Your task to perform on an android device: Open Yahoo.com Image 0: 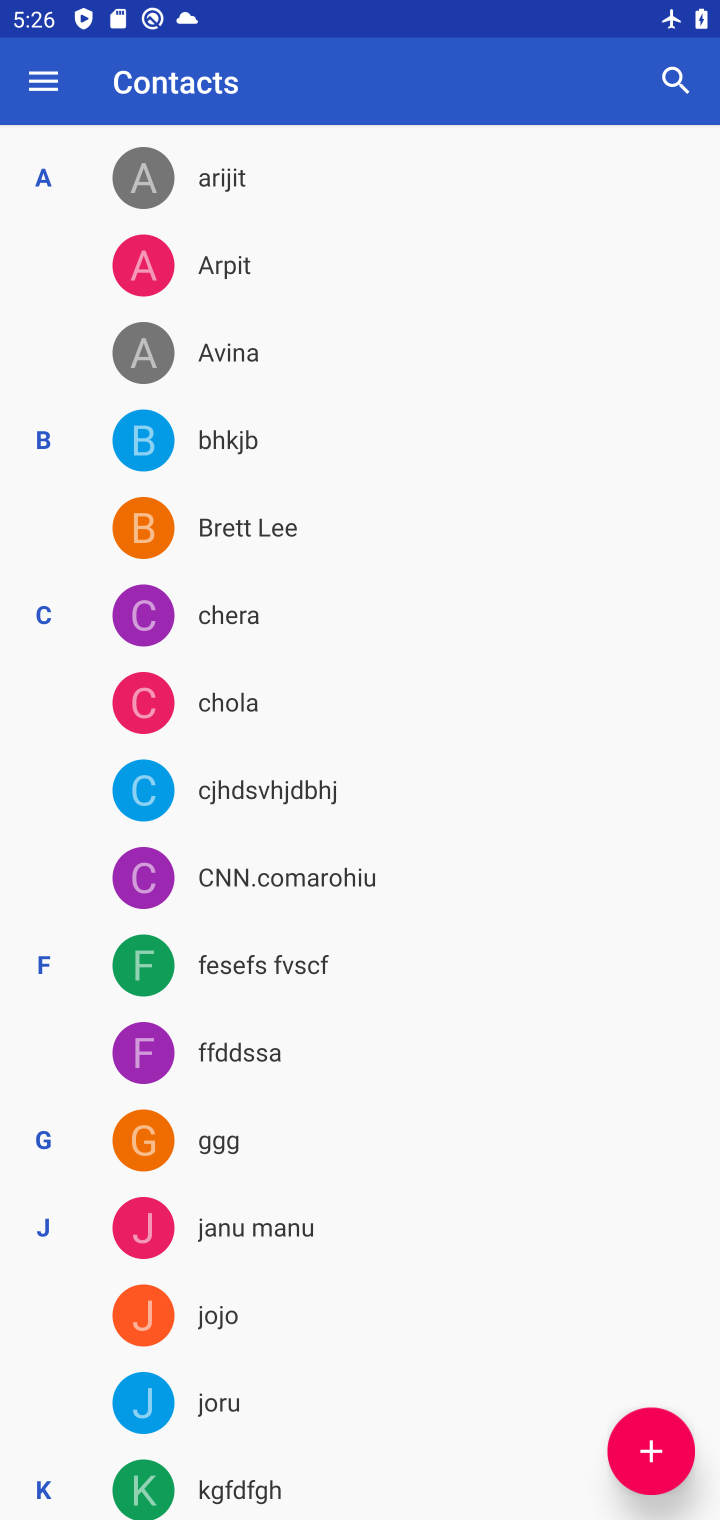
Step 0: press back button
Your task to perform on an android device: Open Yahoo.com Image 1: 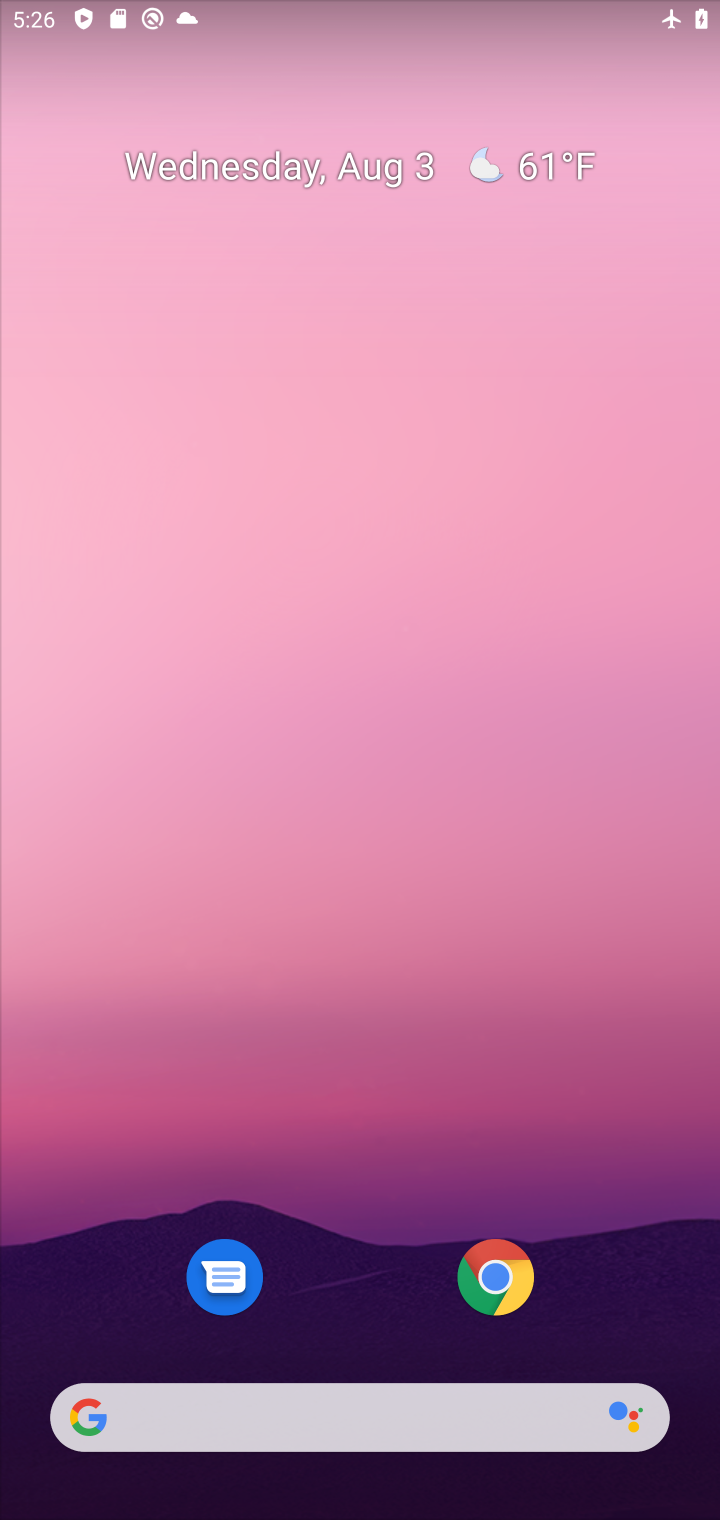
Step 1: click (484, 1276)
Your task to perform on an android device: Open Yahoo.com Image 2: 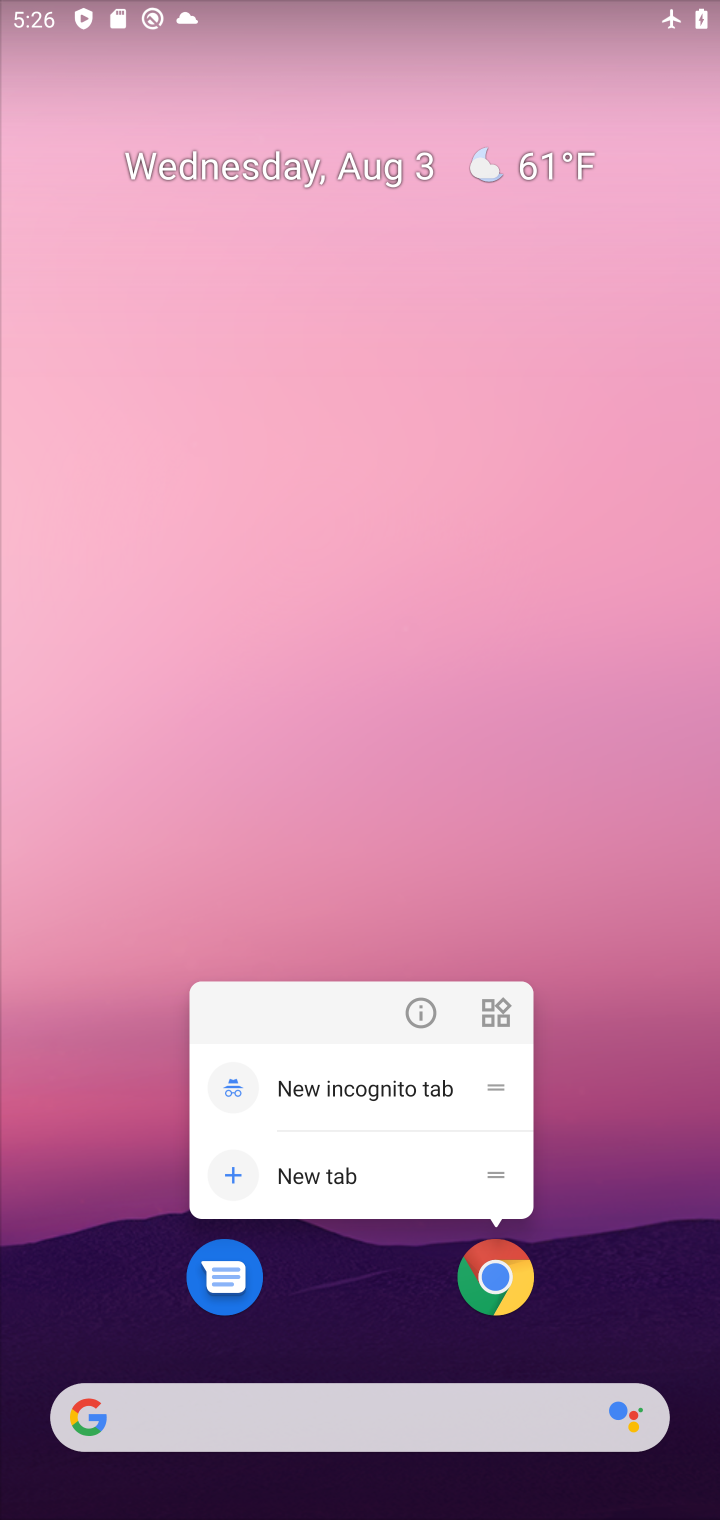
Step 2: click (502, 1270)
Your task to perform on an android device: Open Yahoo.com Image 3: 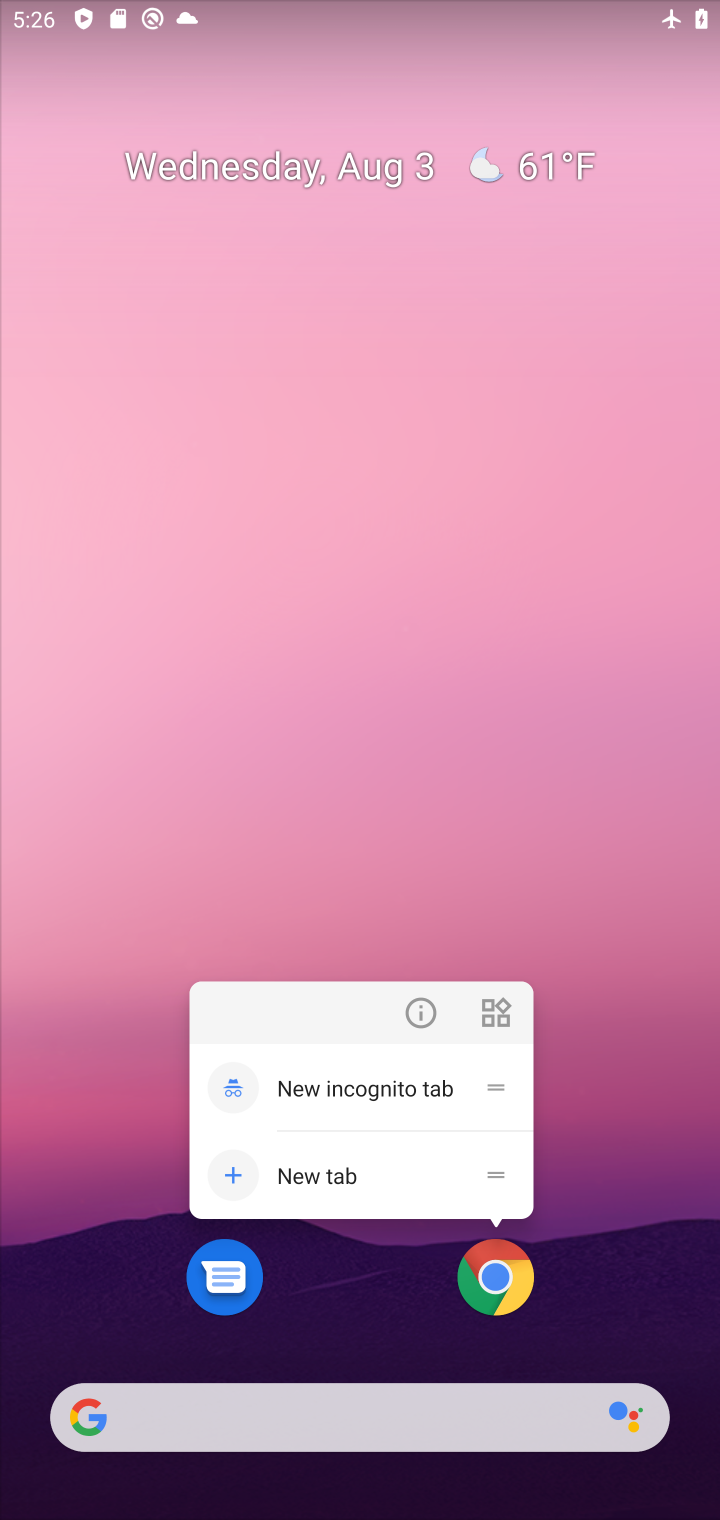
Step 3: click (521, 1266)
Your task to perform on an android device: Open Yahoo.com Image 4: 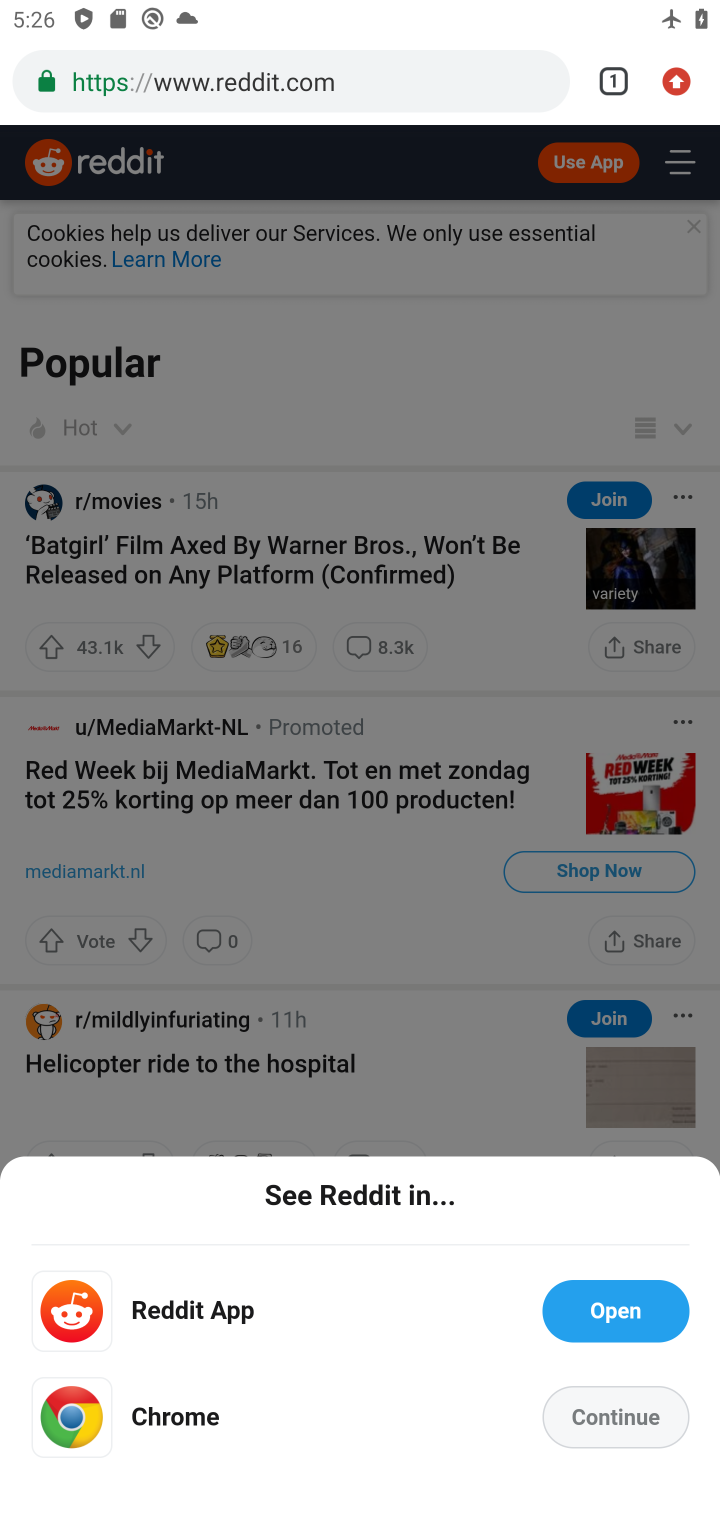
Step 4: click (600, 71)
Your task to perform on an android device: Open Yahoo.com Image 5: 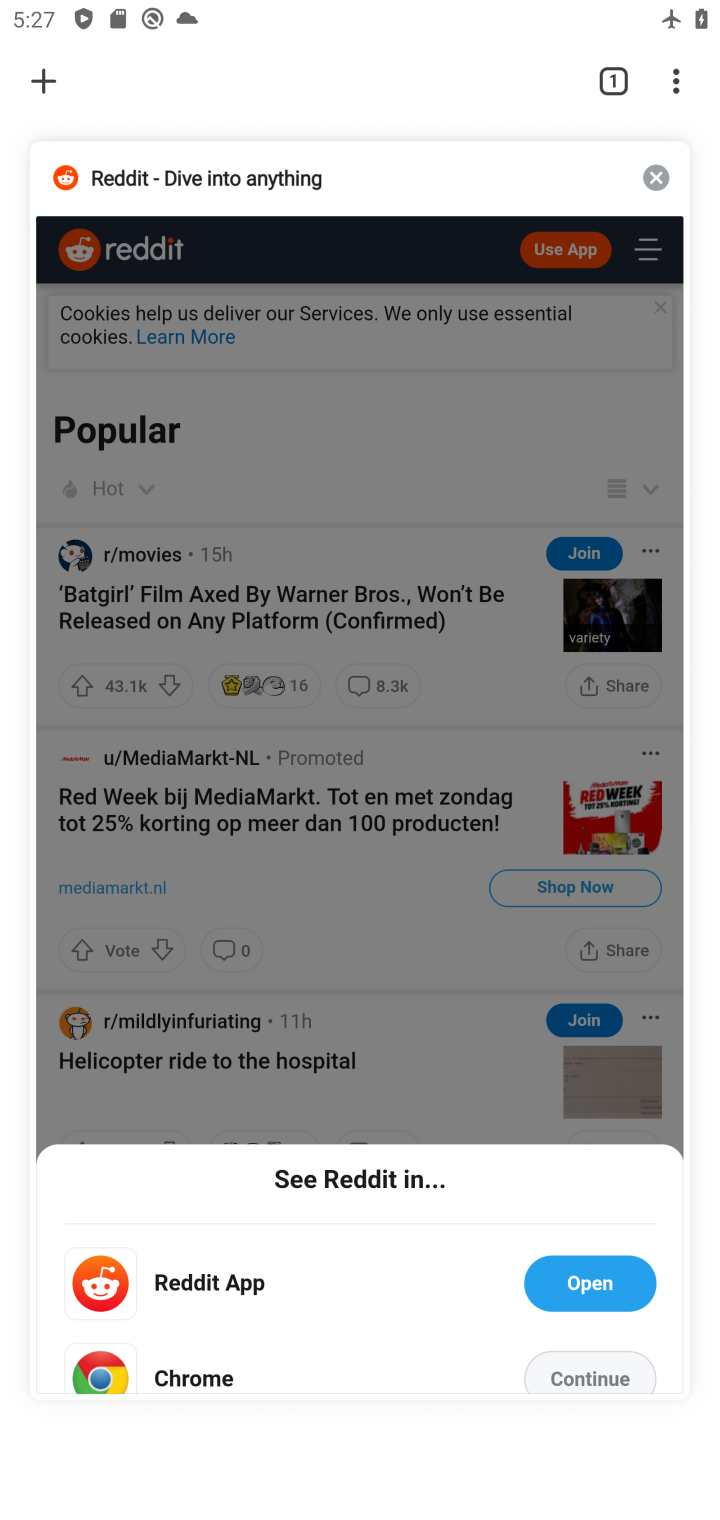
Step 5: click (41, 81)
Your task to perform on an android device: Open Yahoo.com Image 6: 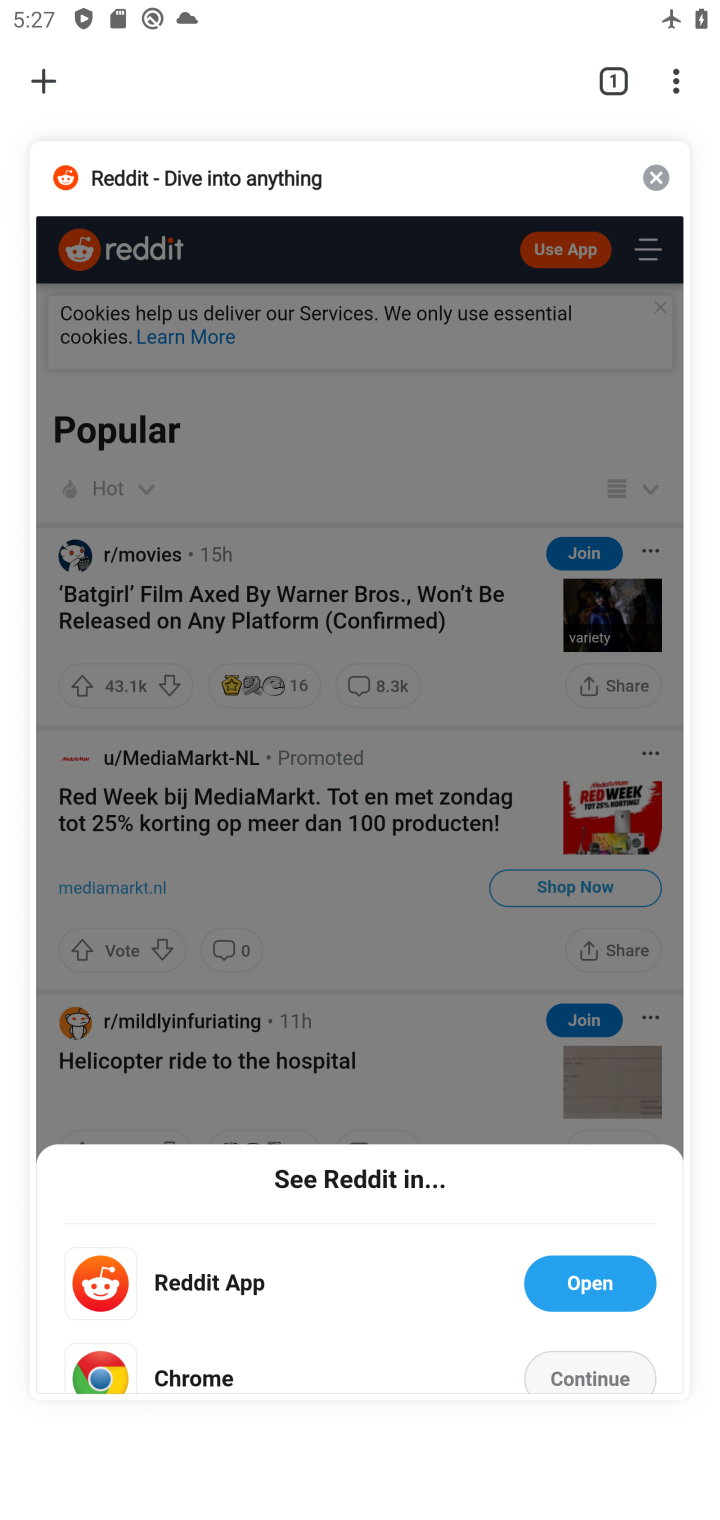
Step 6: click (41, 81)
Your task to perform on an android device: Open Yahoo.com Image 7: 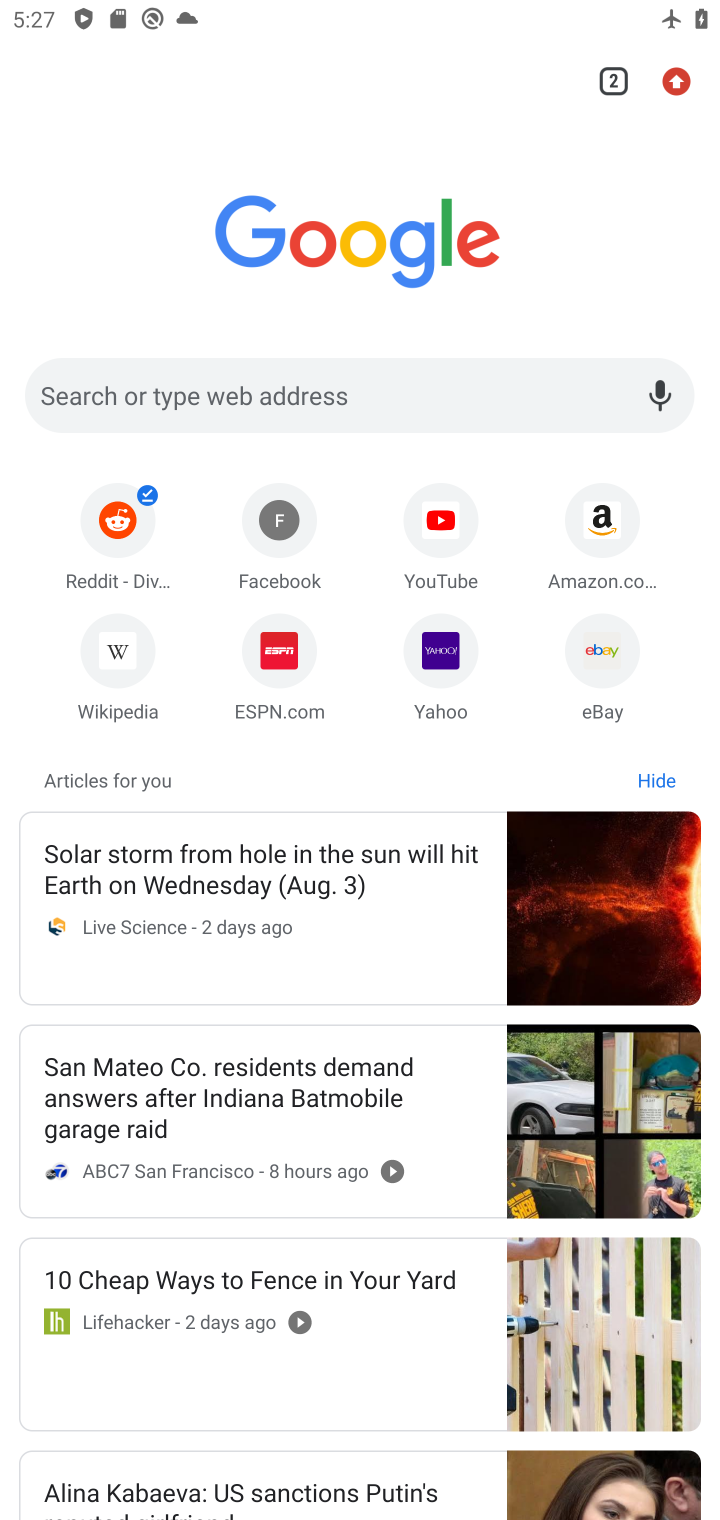
Step 7: click (437, 662)
Your task to perform on an android device: Open Yahoo.com Image 8: 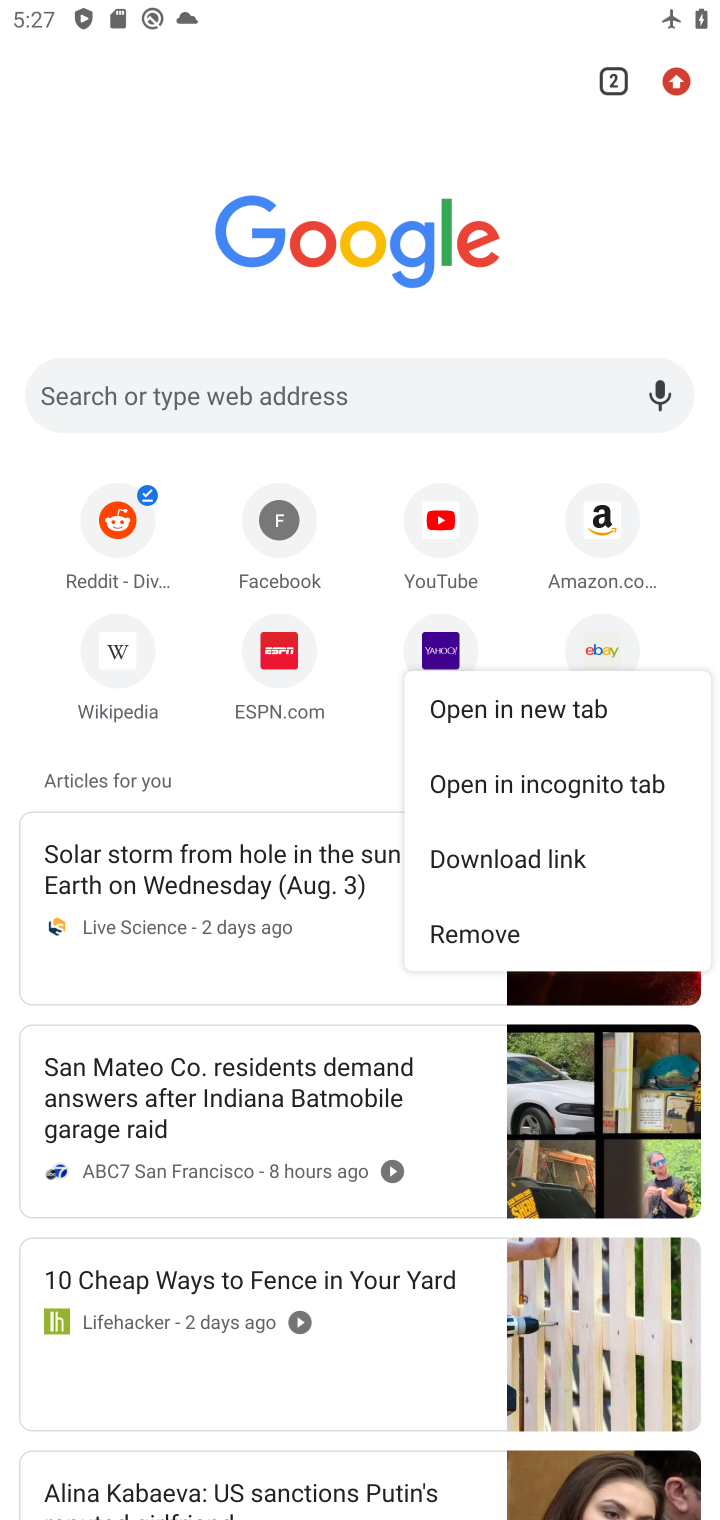
Step 8: click (442, 652)
Your task to perform on an android device: Open Yahoo.com Image 9: 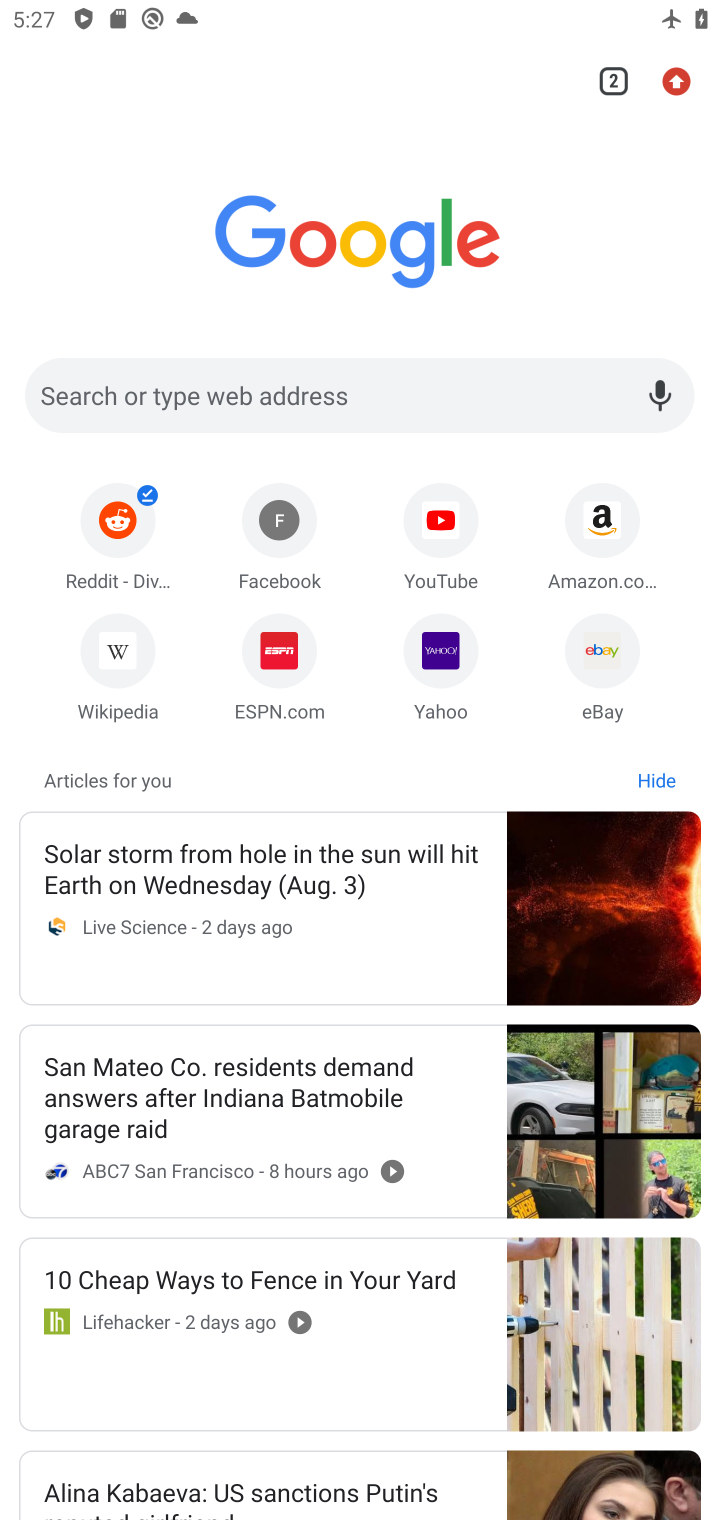
Step 9: click (442, 654)
Your task to perform on an android device: Open Yahoo.com Image 10: 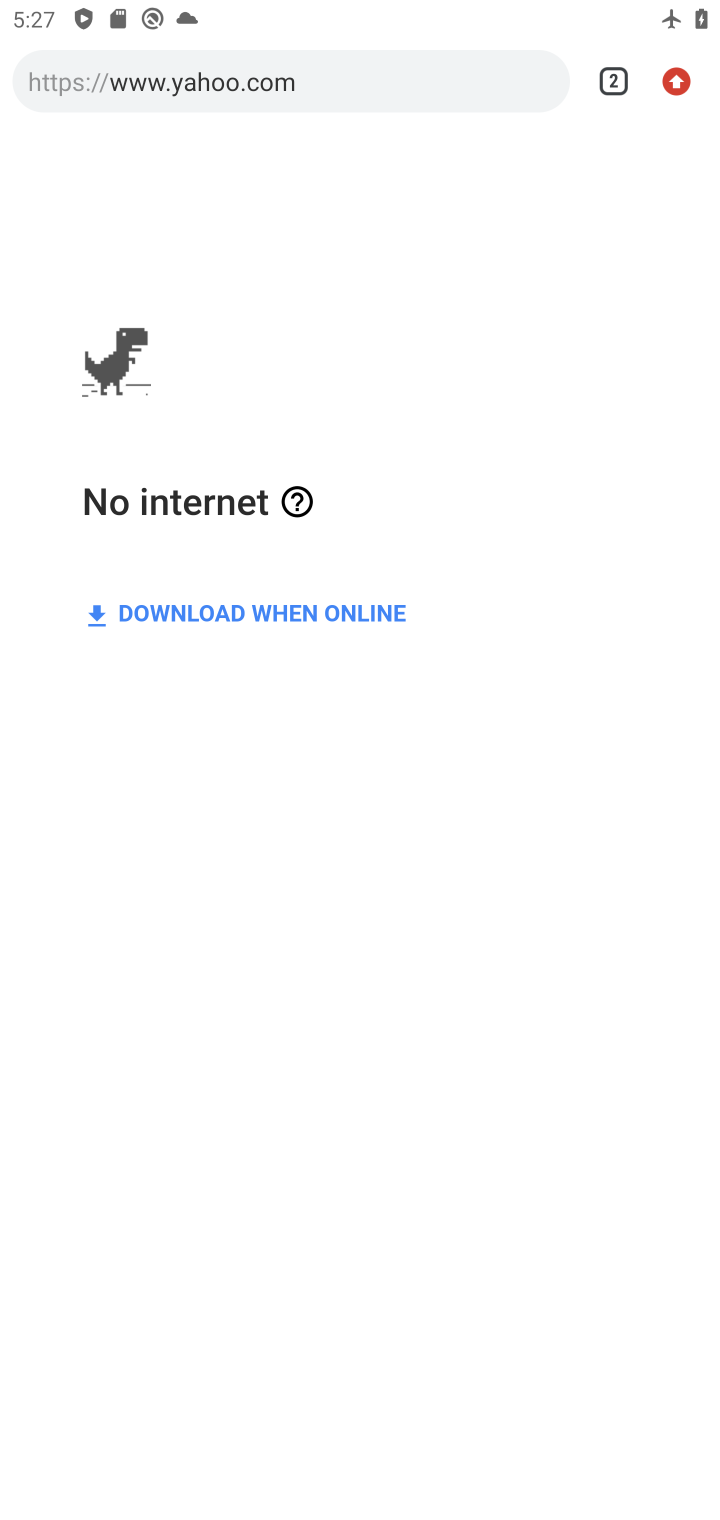
Step 10: drag from (680, 20) to (590, 1237)
Your task to perform on an android device: Open Yahoo.com Image 11: 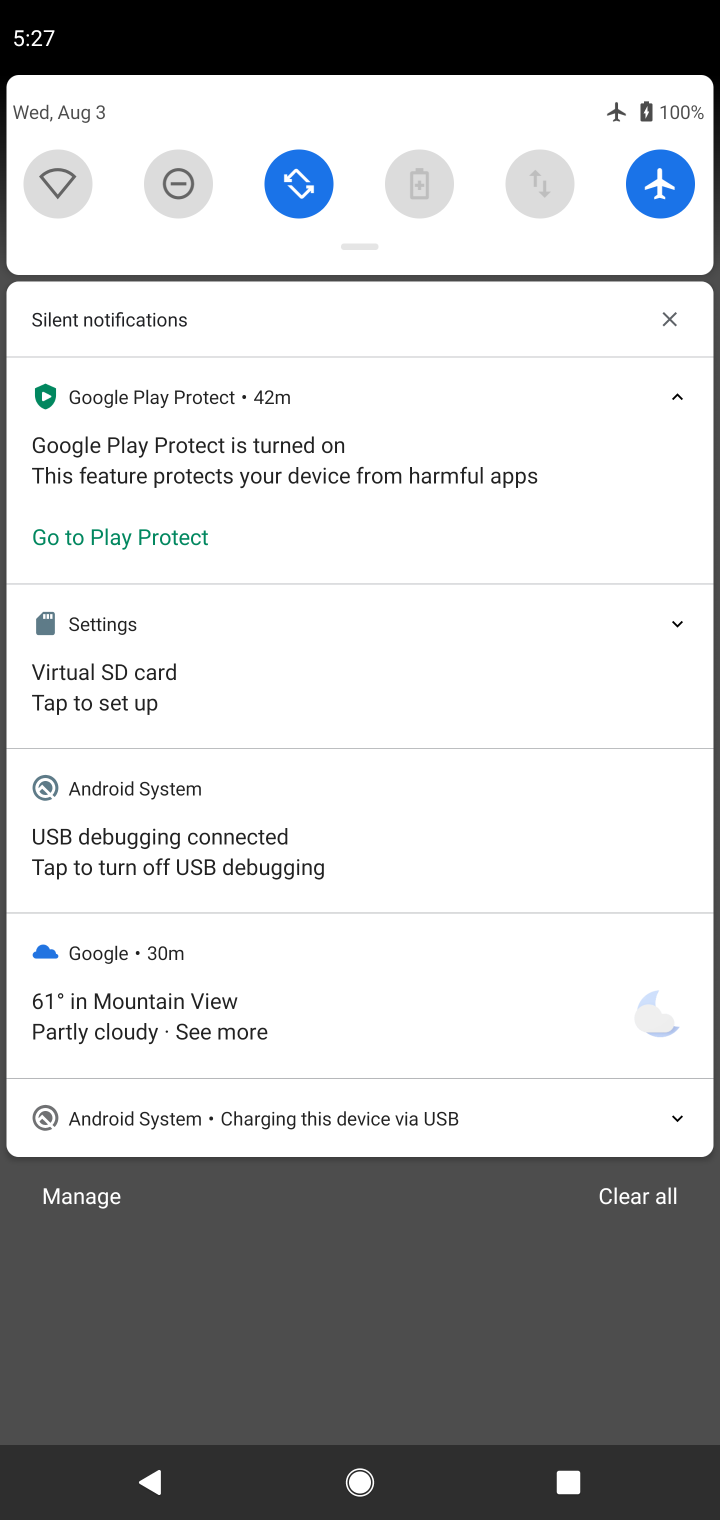
Step 11: click (665, 183)
Your task to perform on an android device: Open Yahoo.com Image 12: 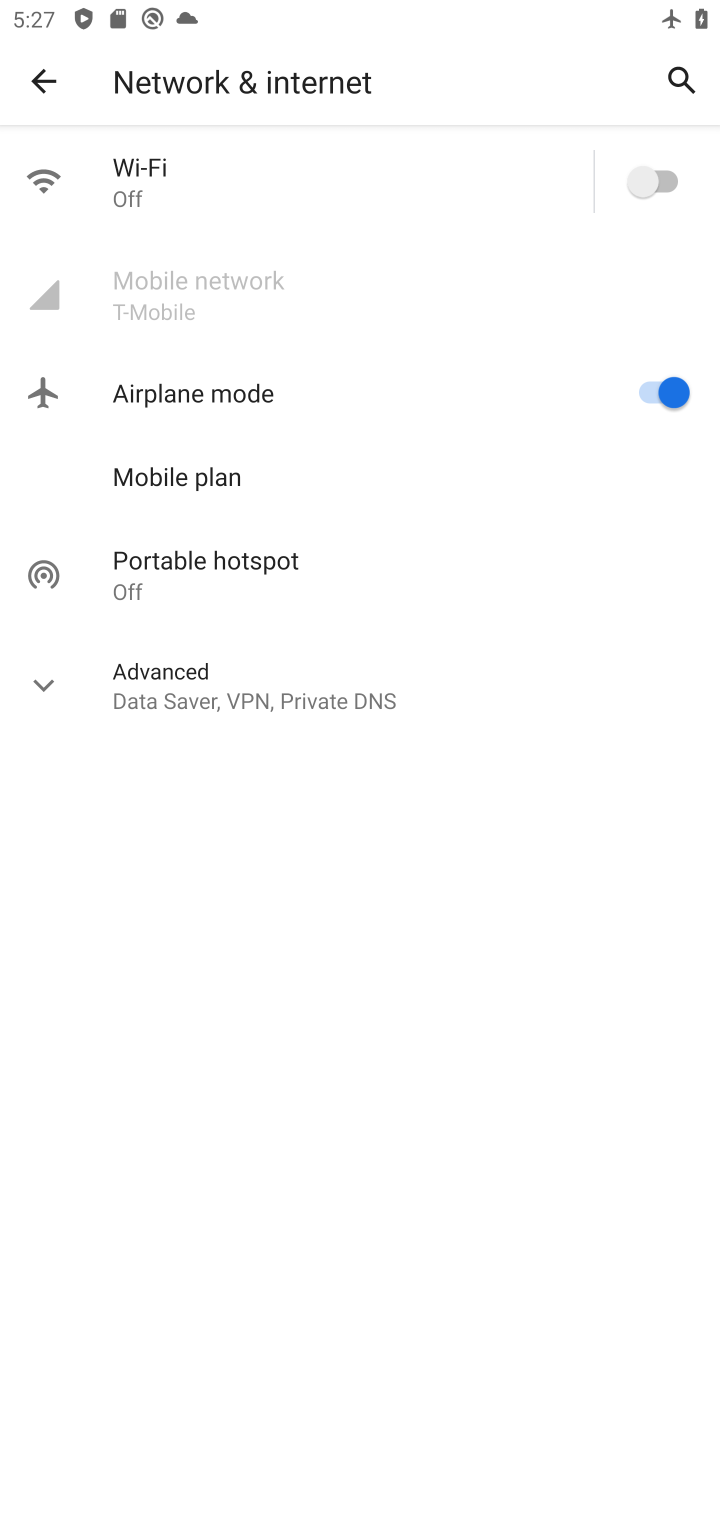
Step 12: press back button
Your task to perform on an android device: Open Yahoo.com Image 13: 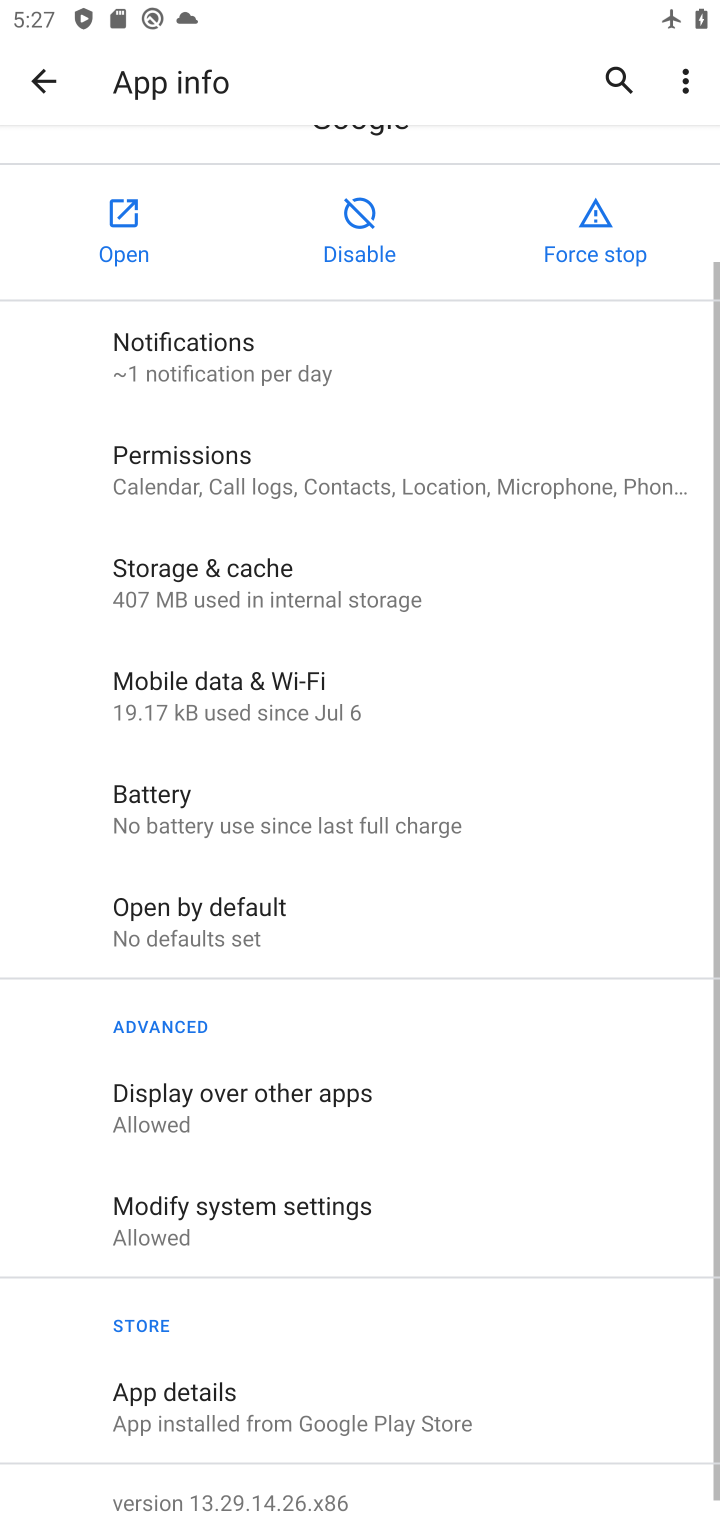
Step 13: drag from (662, 104) to (572, 1100)
Your task to perform on an android device: Open Yahoo.com Image 14: 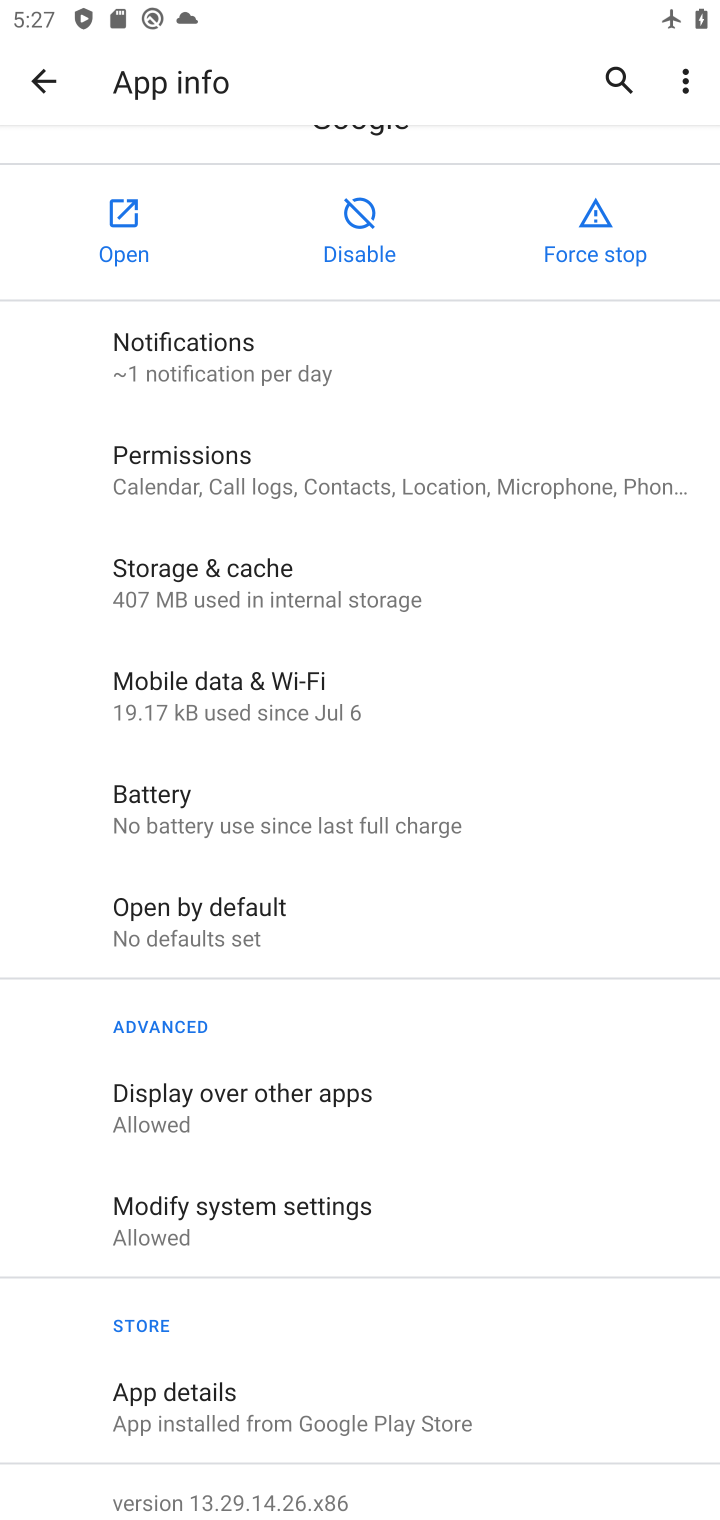
Step 14: drag from (668, 8) to (590, 887)
Your task to perform on an android device: Open Yahoo.com Image 15: 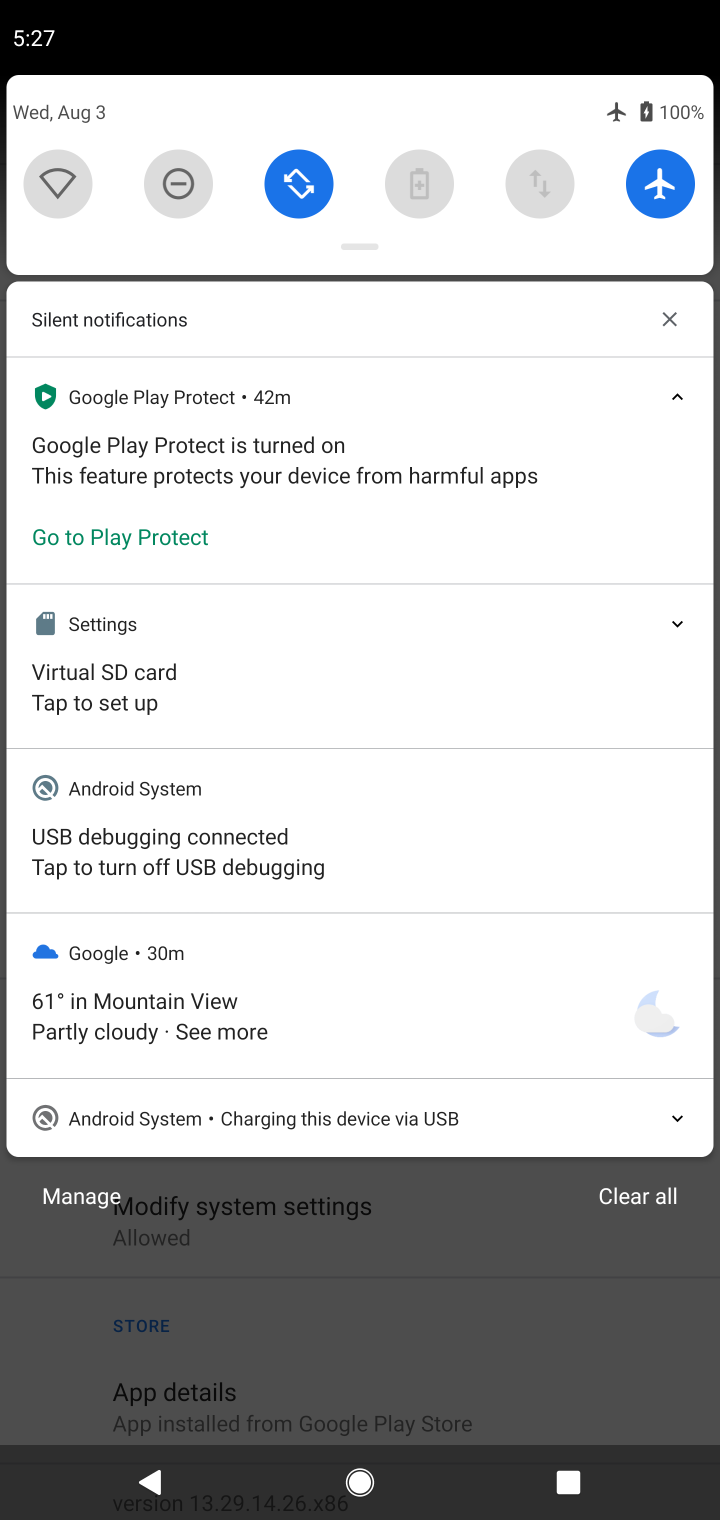
Step 15: click (658, 181)
Your task to perform on an android device: Open Yahoo.com Image 16: 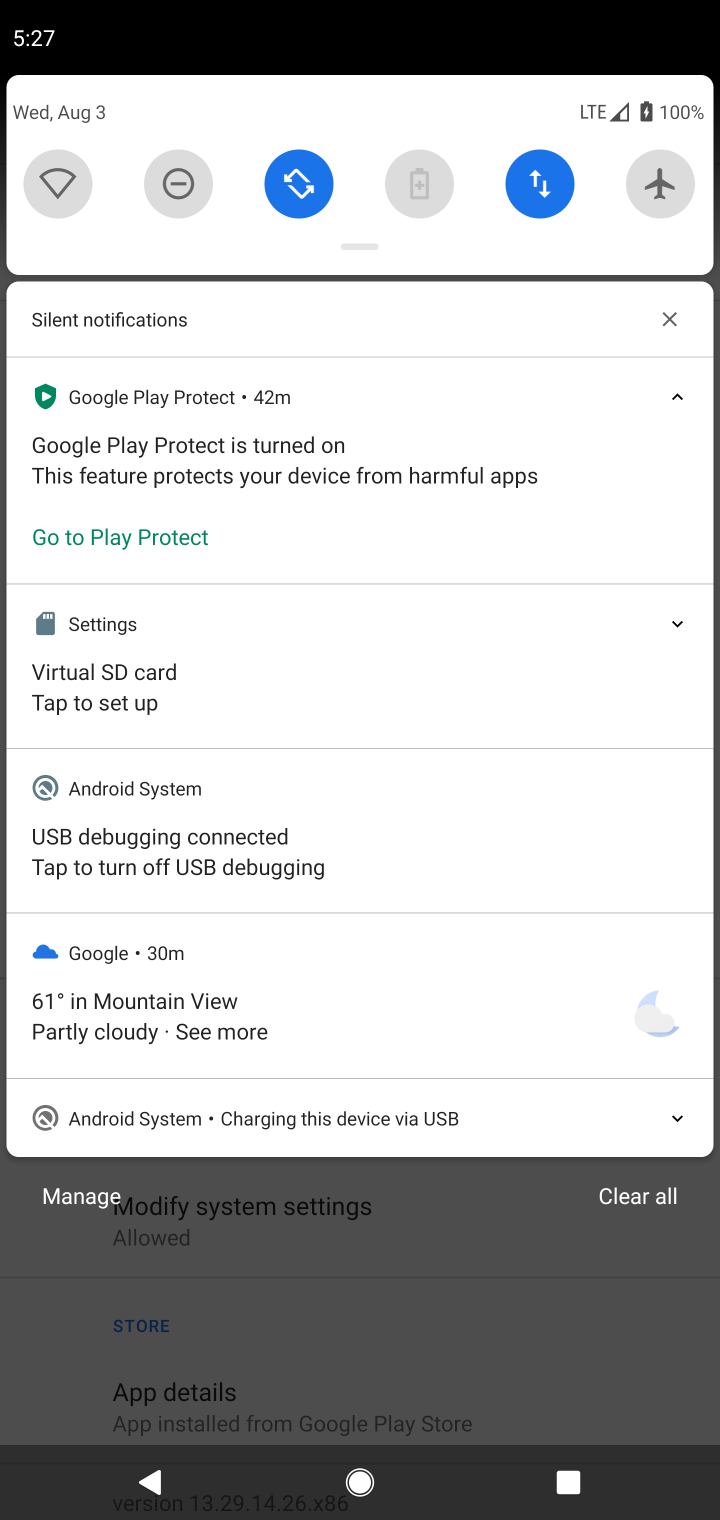
Step 16: click (344, 1181)
Your task to perform on an android device: Open Yahoo.com Image 17: 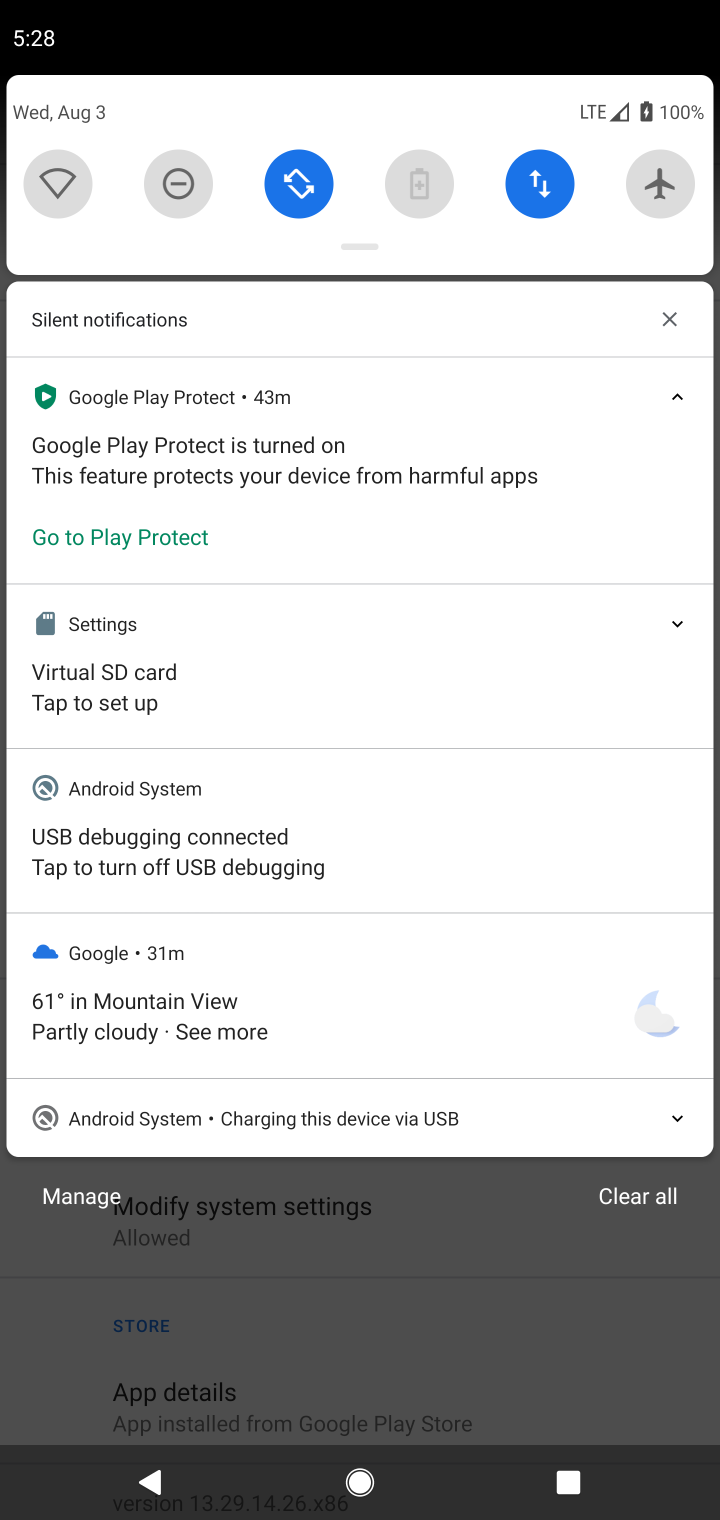
Step 17: task complete